Your task to perform on an android device: toggle javascript in the chrome app Image 0: 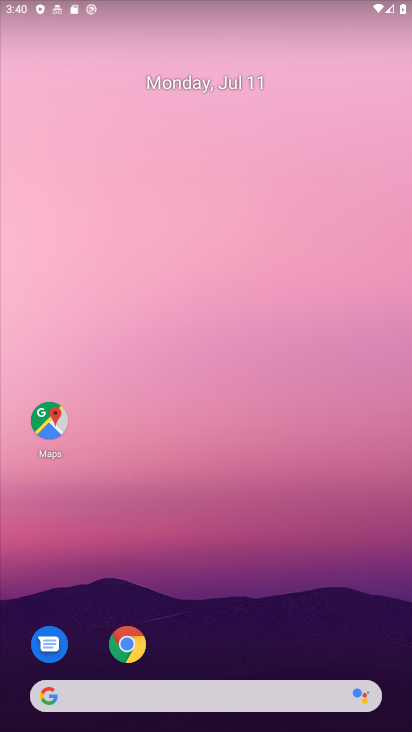
Step 0: drag from (277, 654) to (296, 90)
Your task to perform on an android device: toggle javascript in the chrome app Image 1: 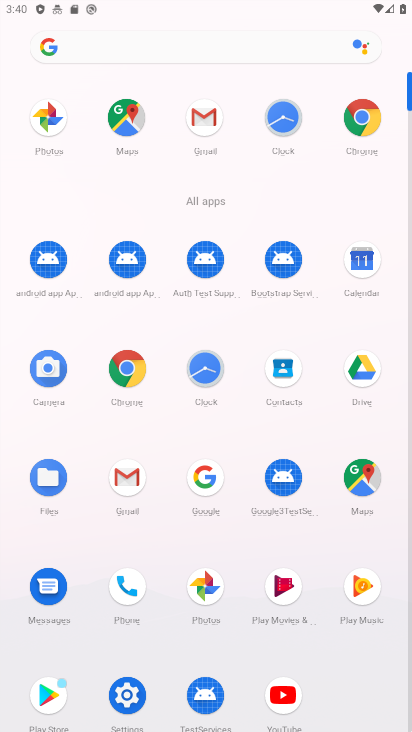
Step 1: click (365, 118)
Your task to perform on an android device: toggle javascript in the chrome app Image 2: 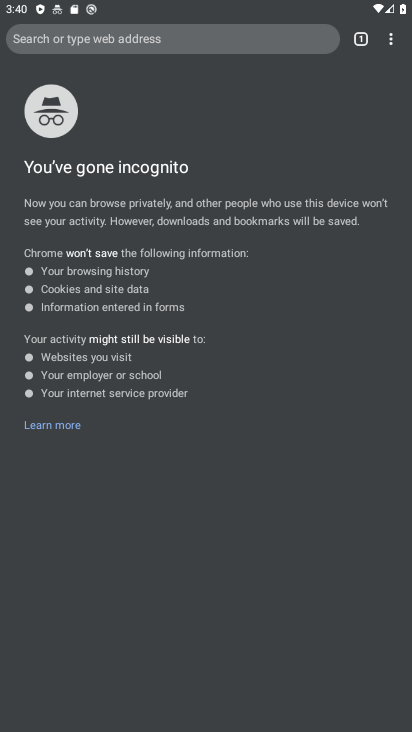
Step 2: click (387, 41)
Your task to perform on an android device: toggle javascript in the chrome app Image 3: 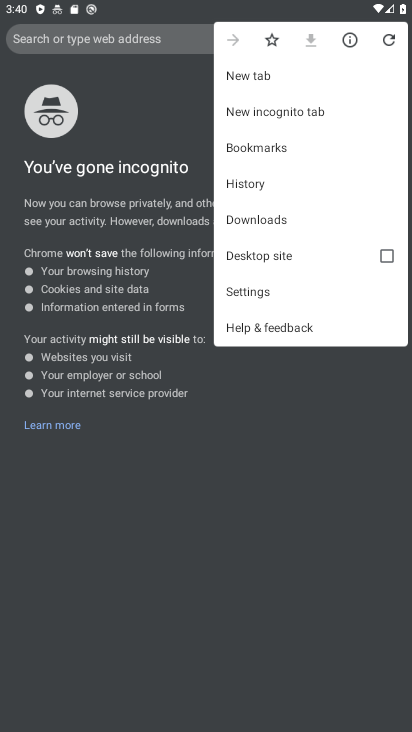
Step 3: click (272, 285)
Your task to perform on an android device: toggle javascript in the chrome app Image 4: 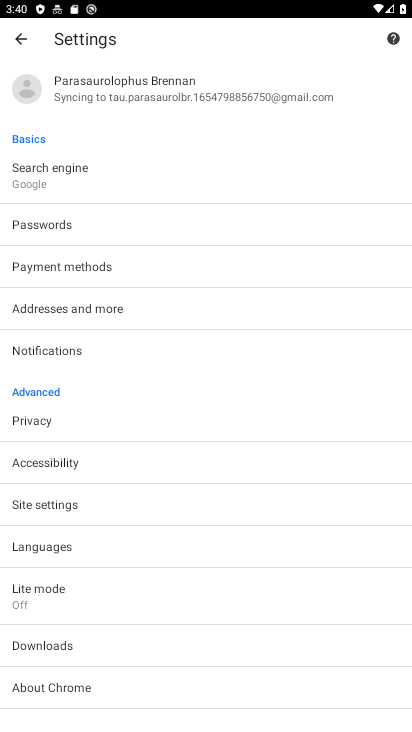
Step 4: drag from (123, 616) to (166, 201)
Your task to perform on an android device: toggle javascript in the chrome app Image 5: 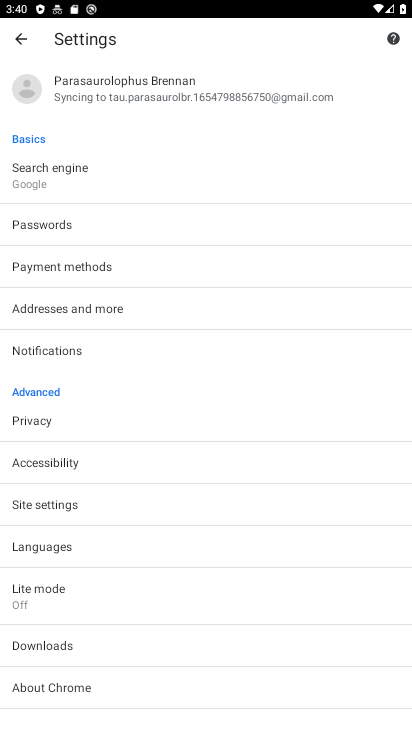
Step 5: click (69, 496)
Your task to perform on an android device: toggle javascript in the chrome app Image 6: 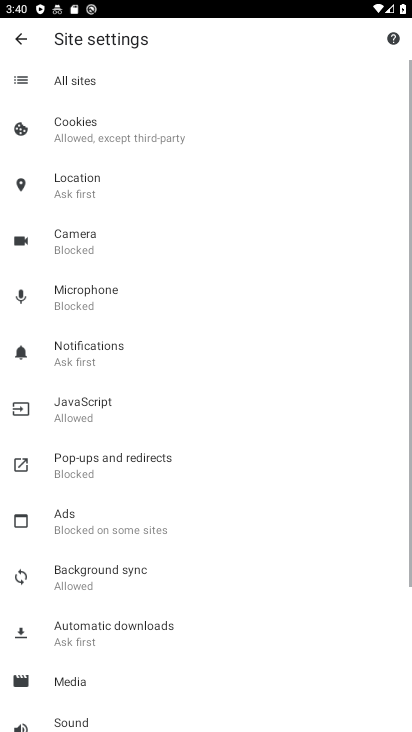
Step 6: click (97, 409)
Your task to perform on an android device: toggle javascript in the chrome app Image 7: 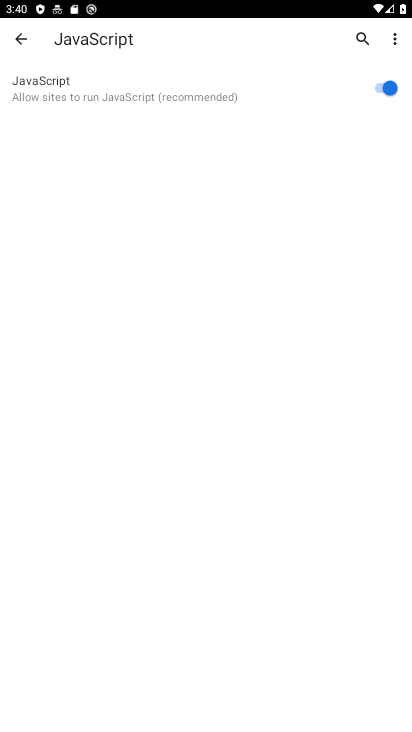
Step 7: click (390, 89)
Your task to perform on an android device: toggle javascript in the chrome app Image 8: 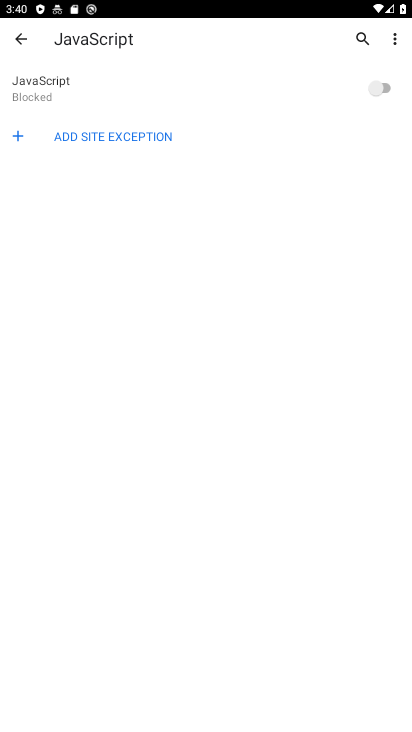
Step 8: task complete